Your task to perform on an android device: Open Wikipedia Image 0: 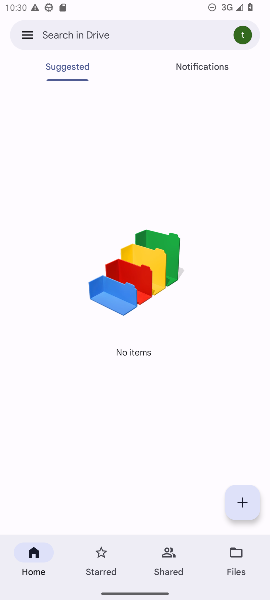
Step 0: press home button
Your task to perform on an android device: Open Wikipedia Image 1: 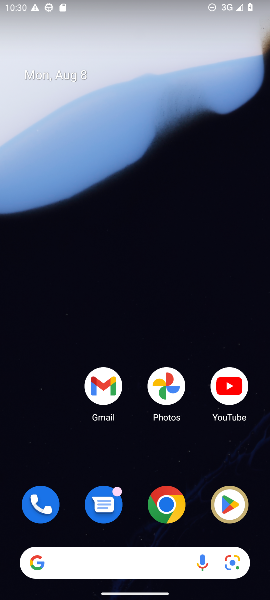
Step 1: click (161, 515)
Your task to perform on an android device: Open Wikipedia Image 2: 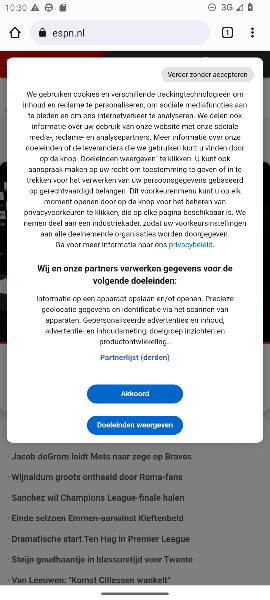
Step 2: click (91, 26)
Your task to perform on an android device: Open Wikipedia Image 3: 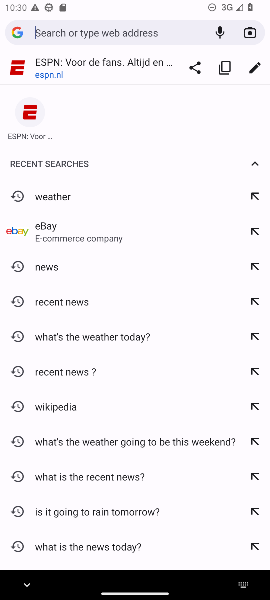
Step 3: type "wikipedia"
Your task to perform on an android device: Open Wikipedia Image 4: 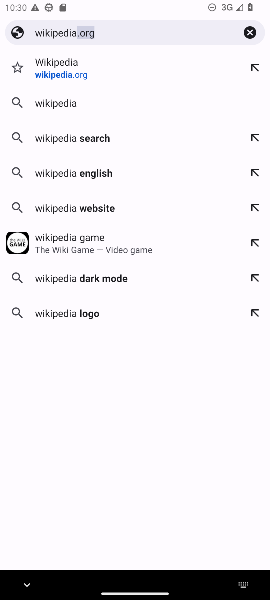
Step 4: click (64, 70)
Your task to perform on an android device: Open Wikipedia Image 5: 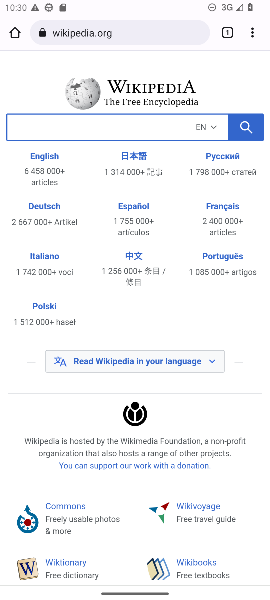
Step 5: task complete